Your task to perform on an android device: Show me popular games on the Play Store Image 0: 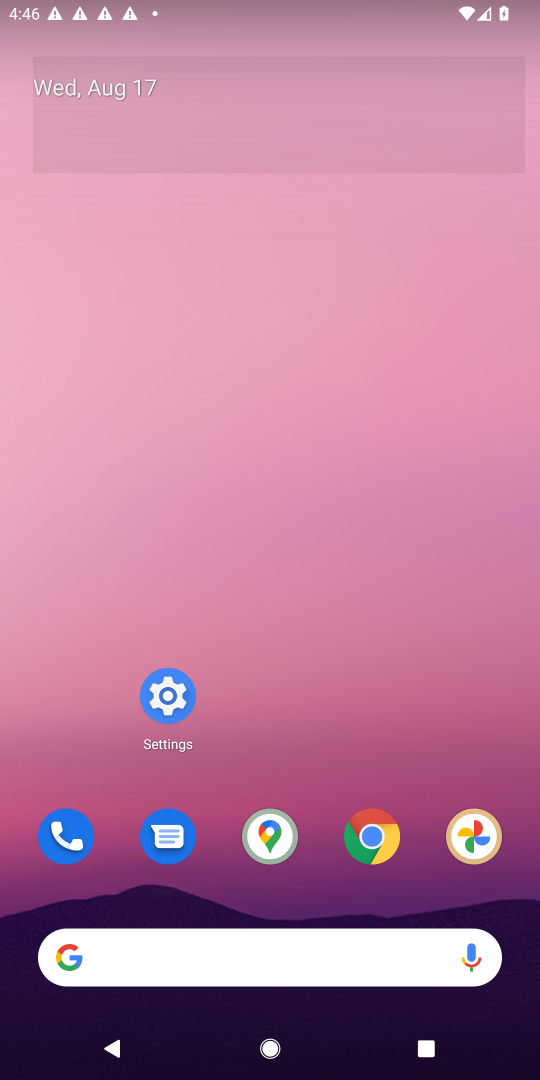
Step 0: drag from (297, 947) to (460, 235)
Your task to perform on an android device: Show me popular games on the Play Store Image 1: 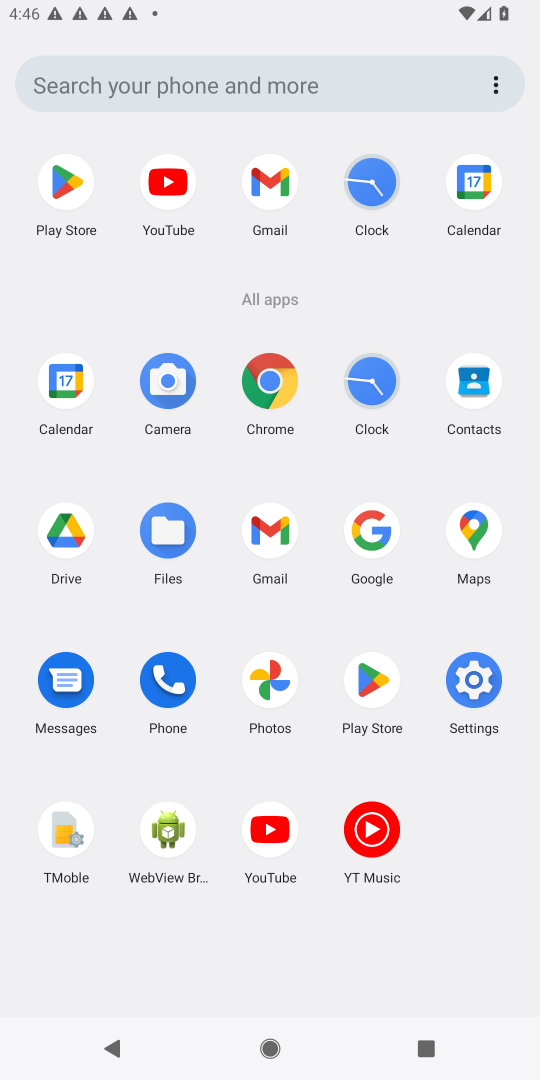
Step 1: click (365, 681)
Your task to perform on an android device: Show me popular games on the Play Store Image 2: 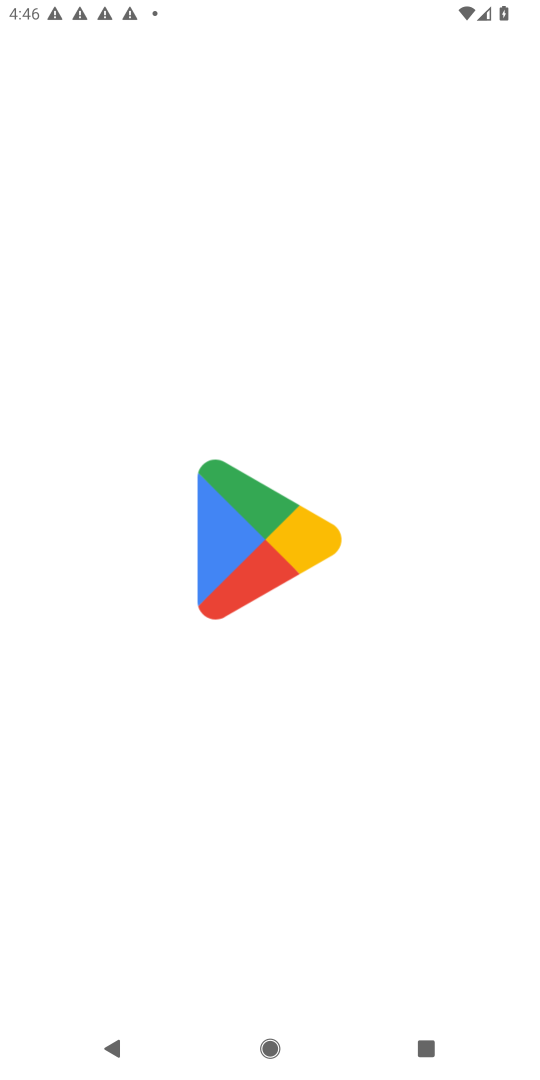
Step 2: click (254, 545)
Your task to perform on an android device: Show me popular games on the Play Store Image 3: 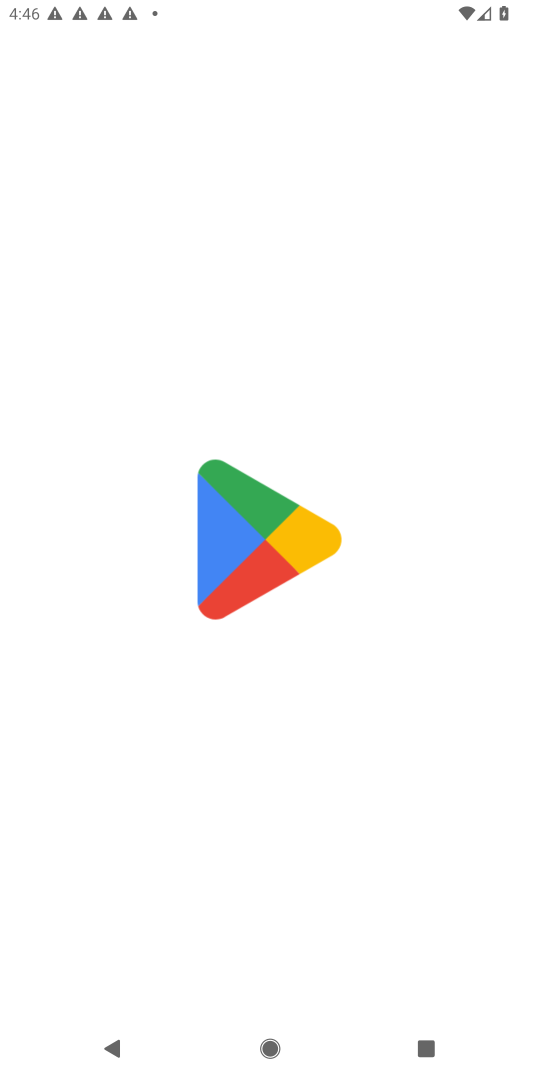
Step 3: task complete